Your task to perform on an android device: Open sound settings Image 0: 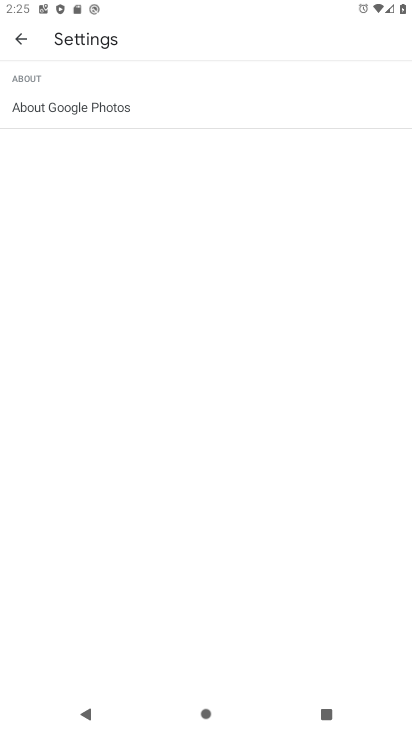
Step 0: press home button
Your task to perform on an android device: Open sound settings Image 1: 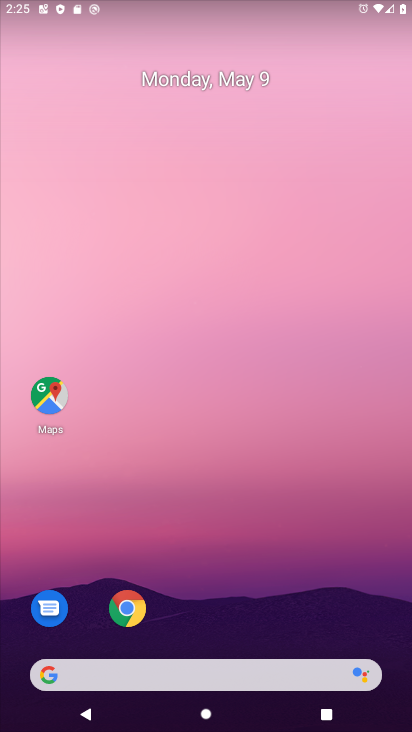
Step 1: drag from (203, 650) to (179, 131)
Your task to perform on an android device: Open sound settings Image 2: 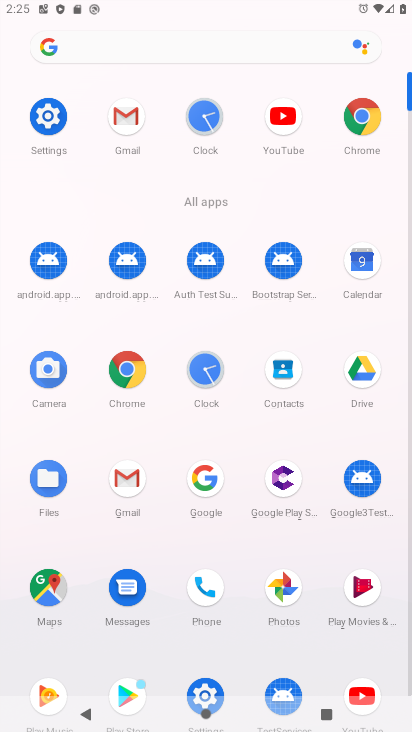
Step 2: click (49, 133)
Your task to perform on an android device: Open sound settings Image 3: 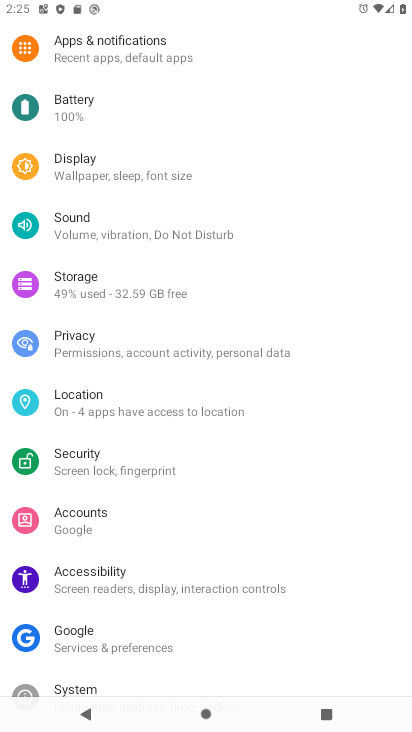
Step 3: click (73, 232)
Your task to perform on an android device: Open sound settings Image 4: 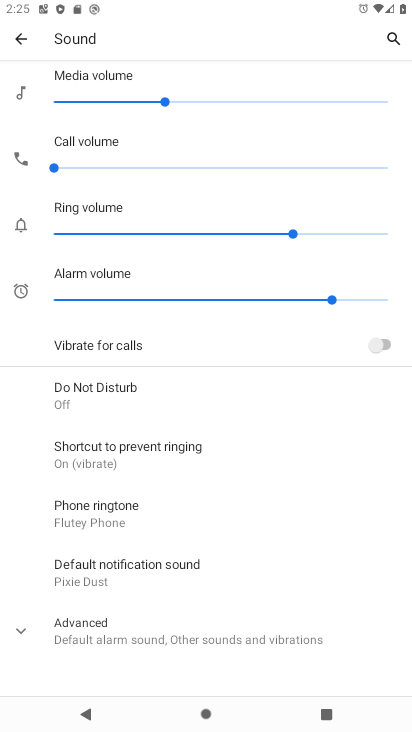
Step 4: task complete